Your task to perform on an android device: Go to Wikipedia Image 0: 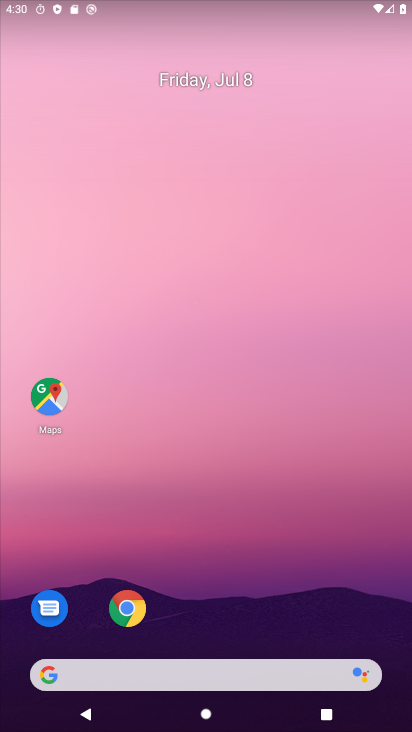
Step 0: press home button
Your task to perform on an android device: Go to Wikipedia Image 1: 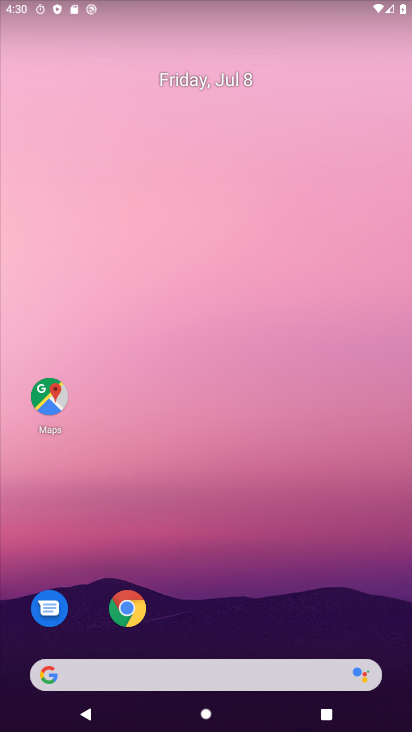
Step 1: drag from (298, 519) to (271, 96)
Your task to perform on an android device: Go to Wikipedia Image 2: 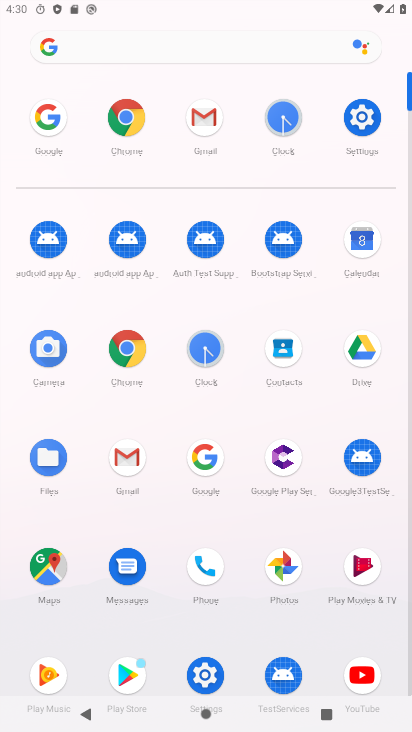
Step 2: click (42, 120)
Your task to perform on an android device: Go to Wikipedia Image 3: 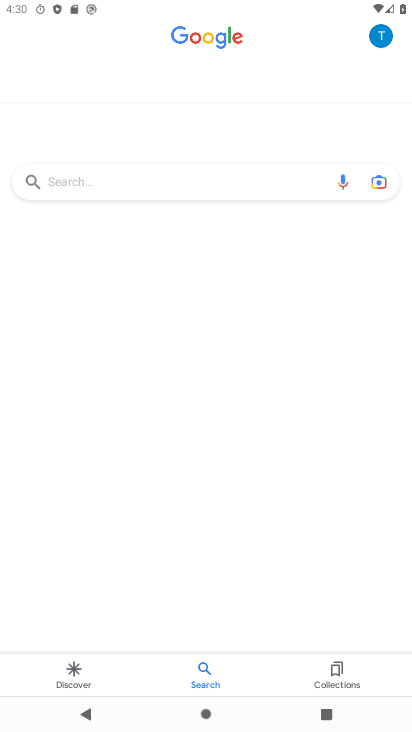
Step 3: click (181, 179)
Your task to perform on an android device: Go to Wikipedia Image 4: 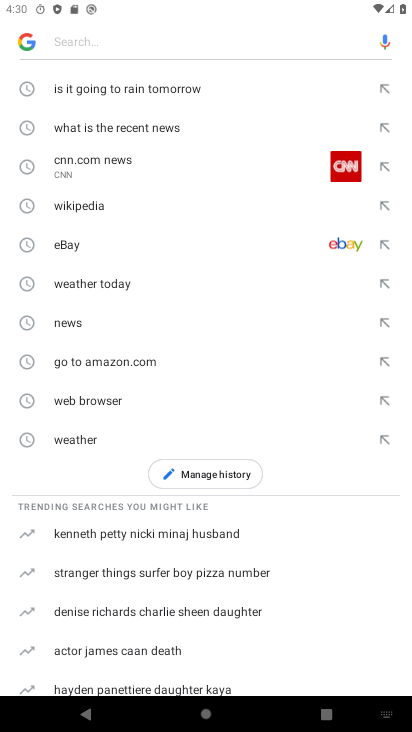
Step 4: type "Wikipedia"
Your task to perform on an android device: Go to Wikipedia Image 5: 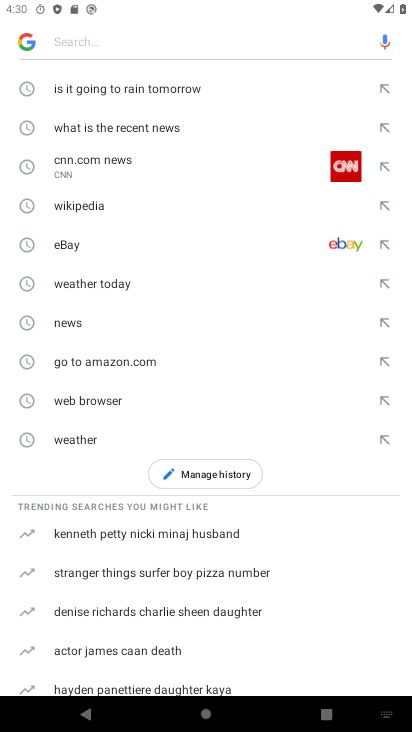
Step 5: click (74, 44)
Your task to perform on an android device: Go to Wikipedia Image 6: 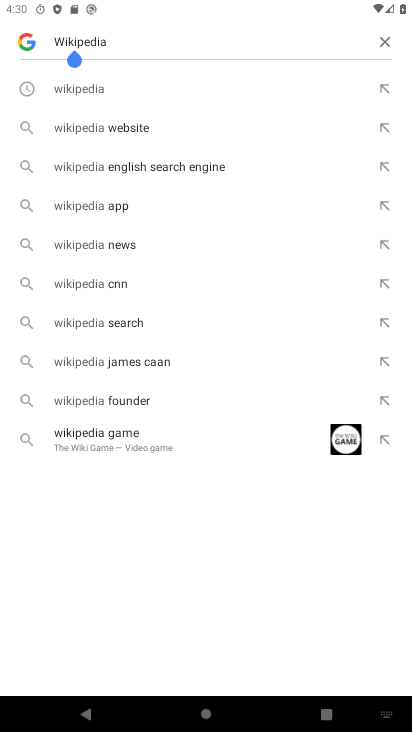
Step 6: click (86, 83)
Your task to perform on an android device: Go to Wikipedia Image 7: 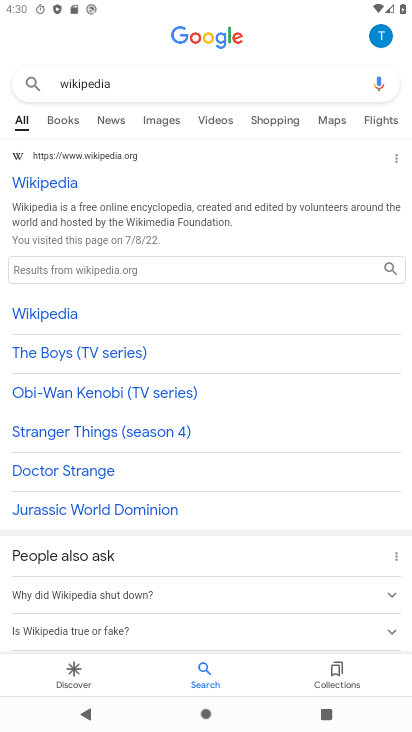
Step 7: click (59, 181)
Your task to perform on an android device: Go to Wikipedia Image 8: 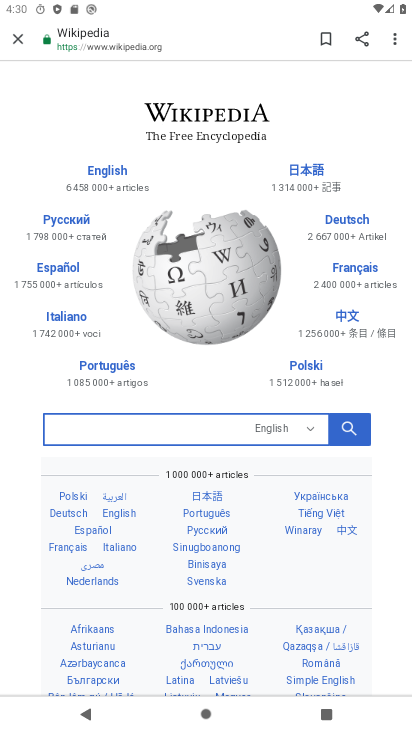
Step 8: task complete